Your task to perform on an android device: Open the calendar app, open the side menu, and click the "Day" option Image 0: 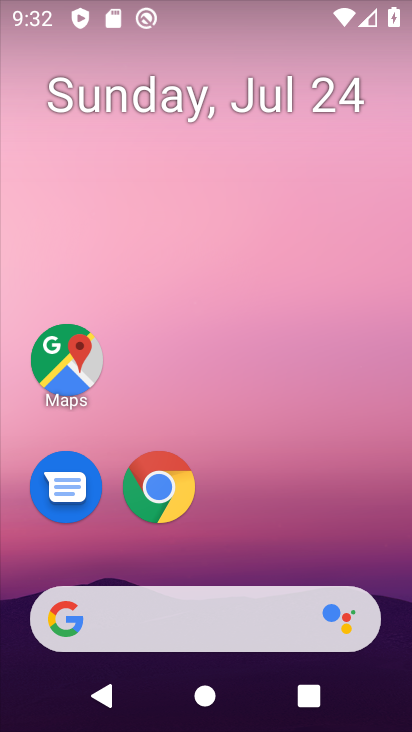
Step 0: drag from (257, 549) to (333, 4)
Your task to perform on an android device: Open the calendar app, open the side menu, and click the "Day" option Image 1: 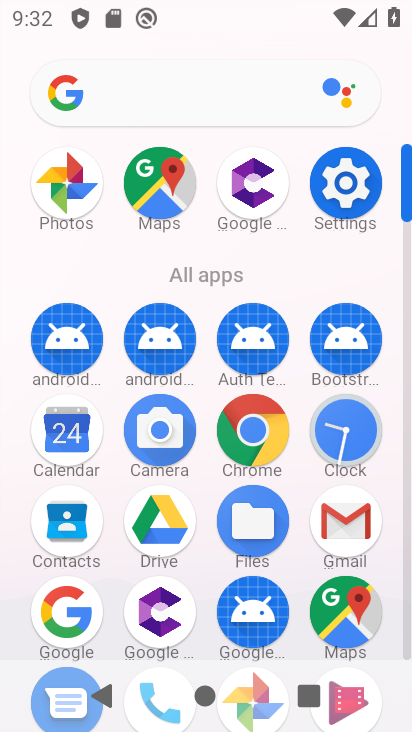
Step 1: click (51, 430)
Your task to perform on an android device: Open the calendar app, open the side menu, and click the "Day" option Image 2: 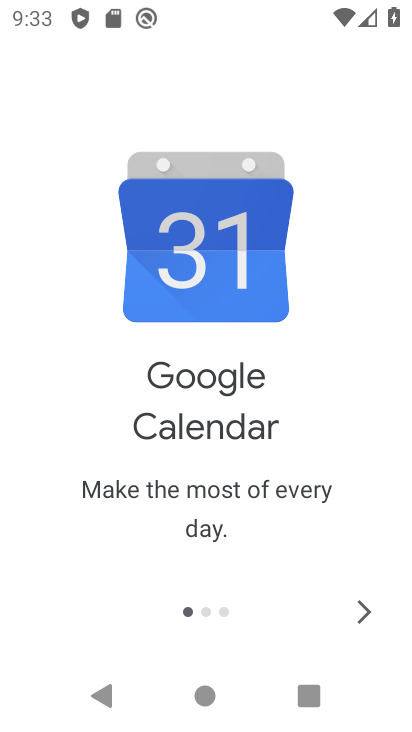
Step 2: click (386, 610)
Your task to perform on an android device: Open the calendar app, open the side menu, and click the "Day" option Image 3: 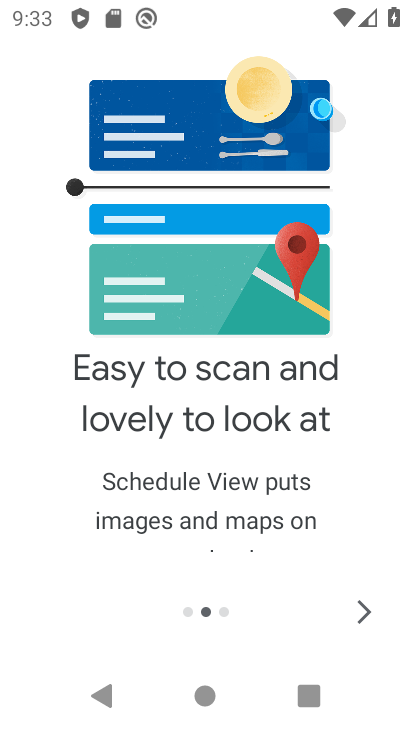
Step 3: click (371, 608)
Your task to perform on an android device: Open the calendar app, open the side menu, and click the "Day" option Image 4: 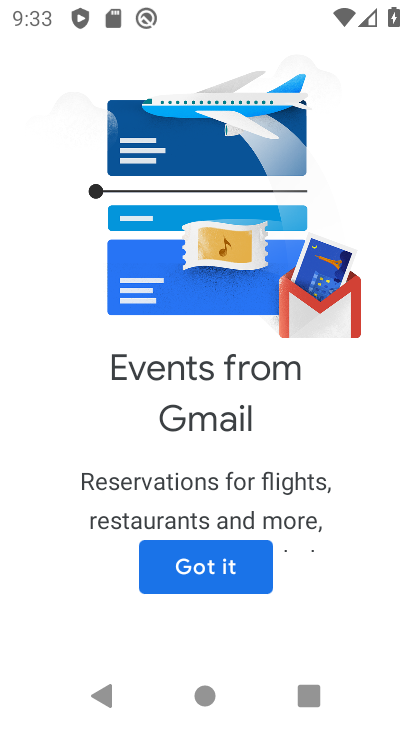
Step 4: click (209, 569)
Your task to perform on an android device: Open the calendar app, open the side menu, and click the "Day" option Image 5: 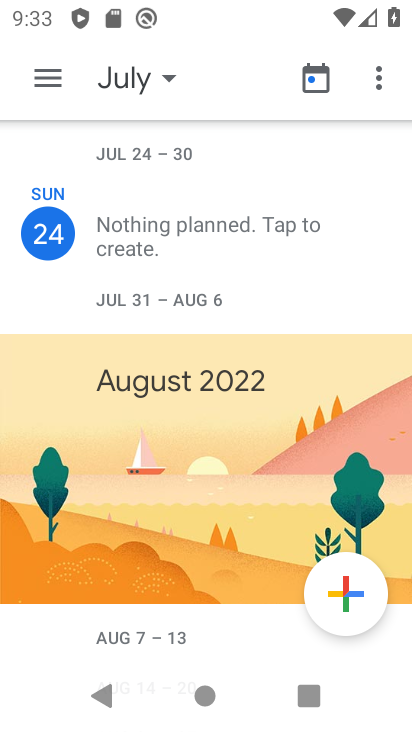
Step 5: click (54, 66)
Your task to perform on an android device: Open the calendar app, open the side menu, and click the "Day" option Image 6: 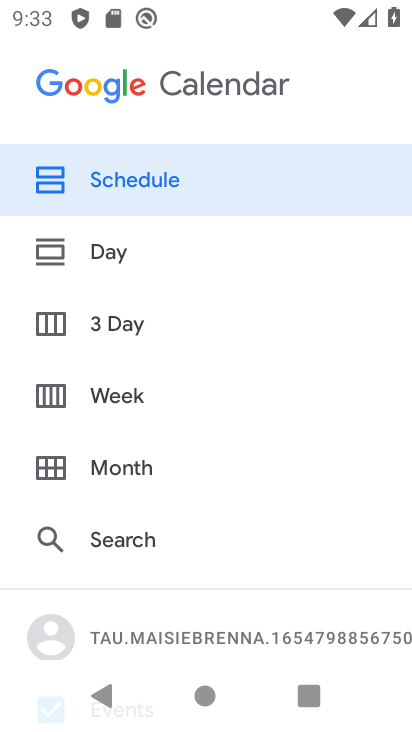
Step 6: click (104, 251)
Your task to perform on an android device: Open the calendar app, open the side menu, and click the "Day" option Image 7: 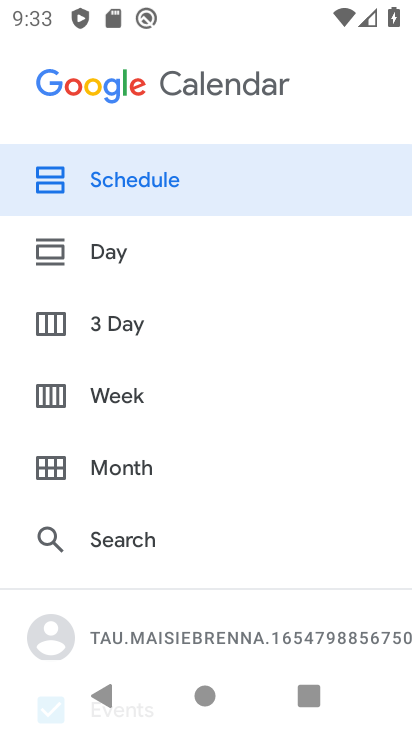
Step 7: click (105, 257)
Your task to perform on an android device: Open the calendar app, open the side menu, and click the "Day" option Image 8: 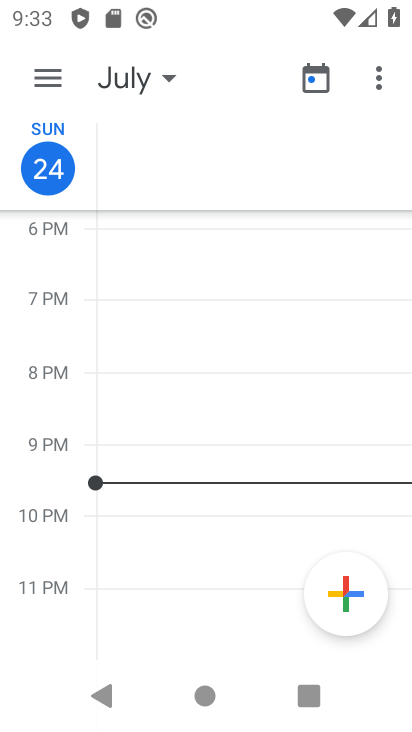
Step 8: task complete